Your task to perform on an android device: Add "macbook" to the cart on newegg, then select checkout. Image 0: 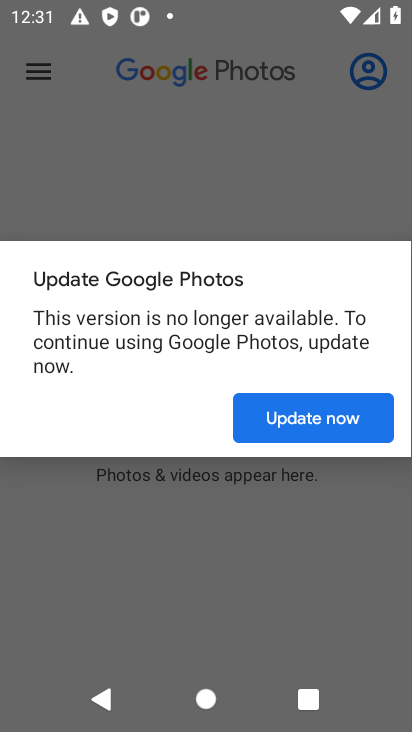
Step 0: press home button
Your task to perform on an android device: Add "macbook" to the cart on newegg, then select checkout. Image 1: 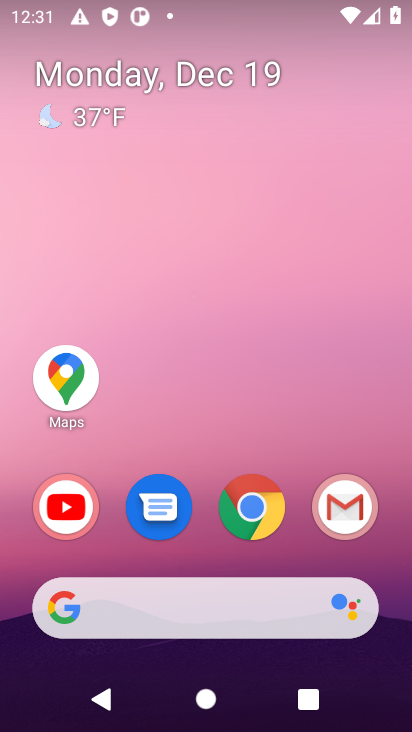
Step 1: click (263, 510)
Your task to perform on an android device: Add "macbook" to the cart on newegg, then select checkout. Image 2: 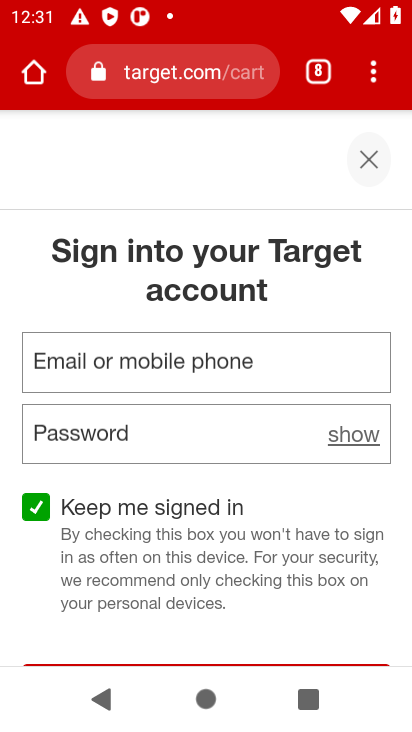
Step 2: click (170, 78)
Your task to perform on an android device: Add "macbook" to the cart on newegg, then select checkout. Image 3: 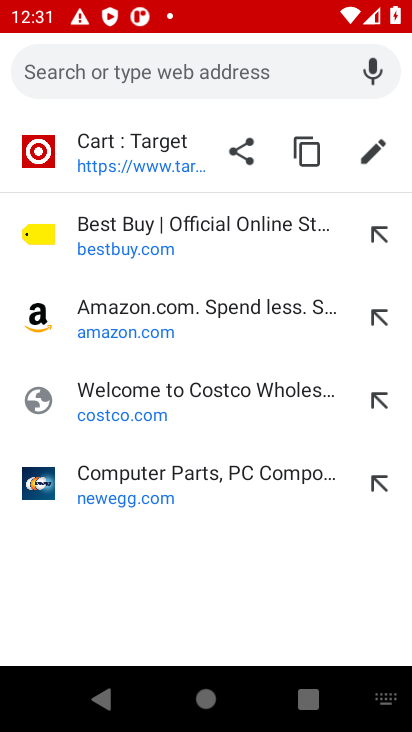
Step 3: click (96, 484)
Your task to perform on an android device: Add "macbook" to the cart on newegg, then select checkout. Image 4: 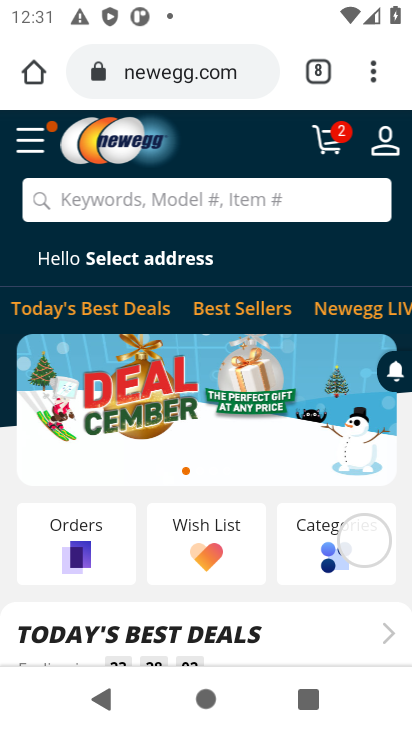
Step 4: click (110, 194)
Your task to perform on an android device: Add "macbook" to the cart on newegg, then select checkout. Image 5: 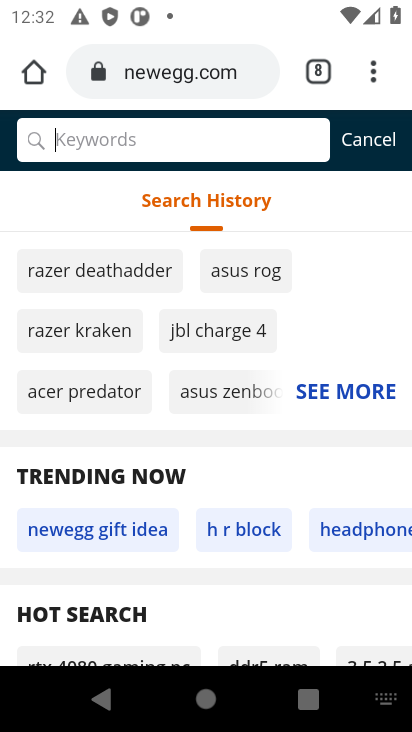
Step 5: type "macbook"
Your task to perform on an android device: Add "macbook" to the cart on newegg, then select checkout. Image 6: 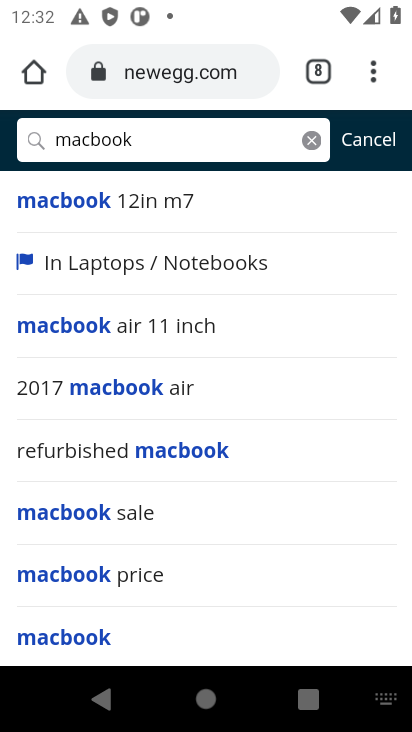
Step 6: click (48, 639)
Your task to perform on an android device: Add "macbook" to the cart on newegg, then select checkout. Image 7: 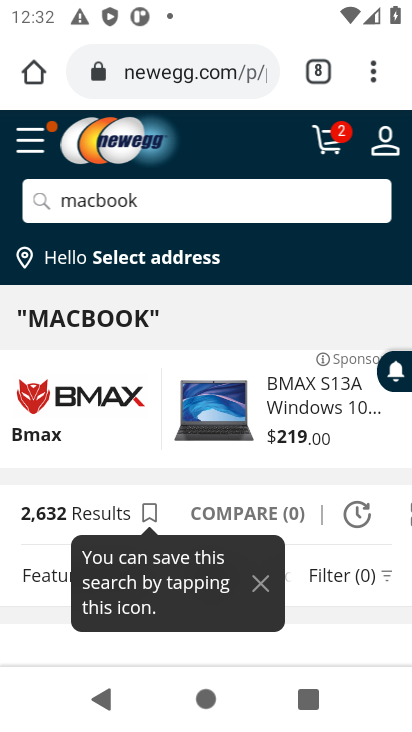
Step 7: drag from (167, 490) to (181, 177)
Your task to perform on an android device: Add "macbook" to the cart on newegg, then select checkout. Image 8: 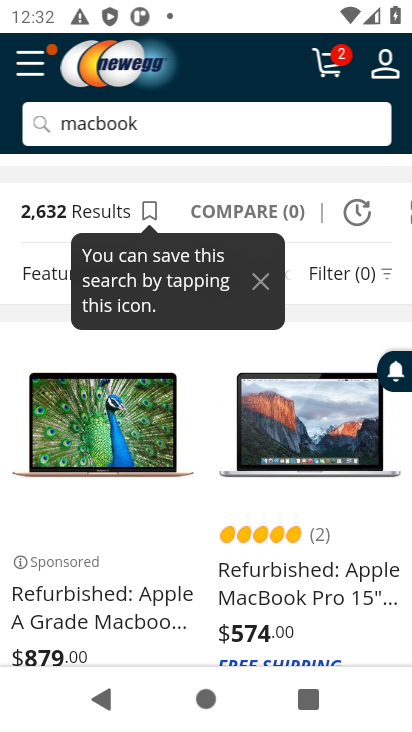
Step 8: drag from (163, 474) to (183, 195)
Your task to perform on an android device: Add "macbook" to the cart on newegg, then select checkout. Image 9: 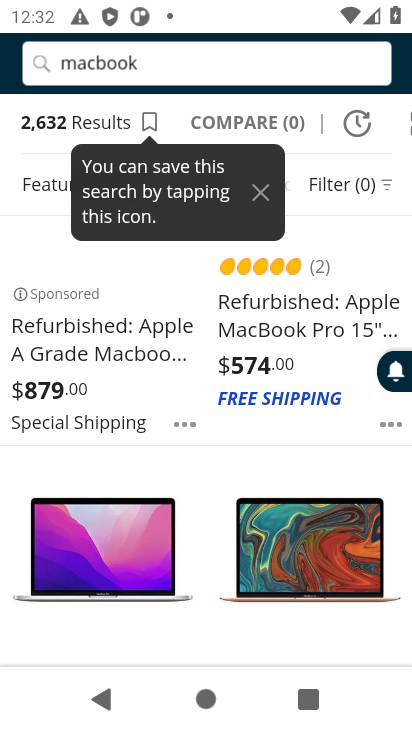
Step 9: click (60, 347)
Your task to perform on an android device: Add "macbook" to the cart on newegg, then select checkout. Image 10: 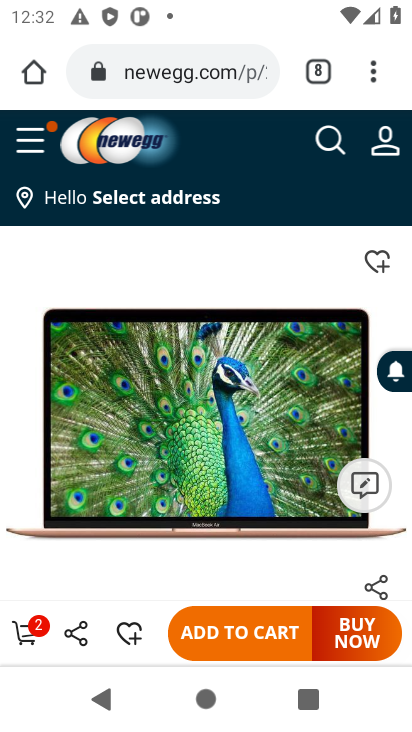
Step 10: drag from (136, 534) to (146, 181)
Your task to perform on an android device: Add "macbook" to the cart on newegg, then select checkout. Image 11: 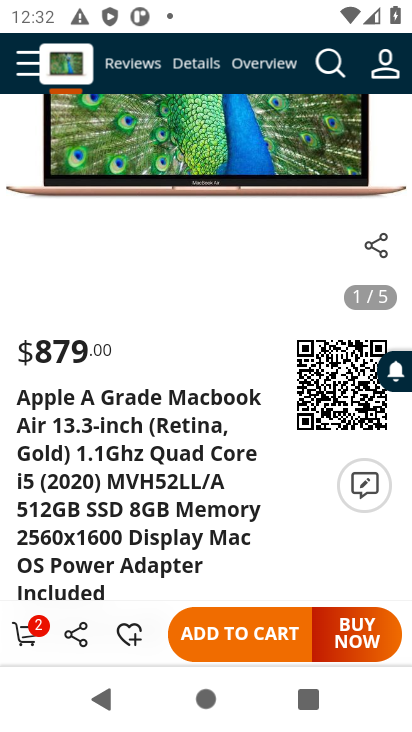
Step 11: click (240, 641)
Your task to perform on an android device: Add "macbook" to the cart on newegg, then select checkout. Image 12: 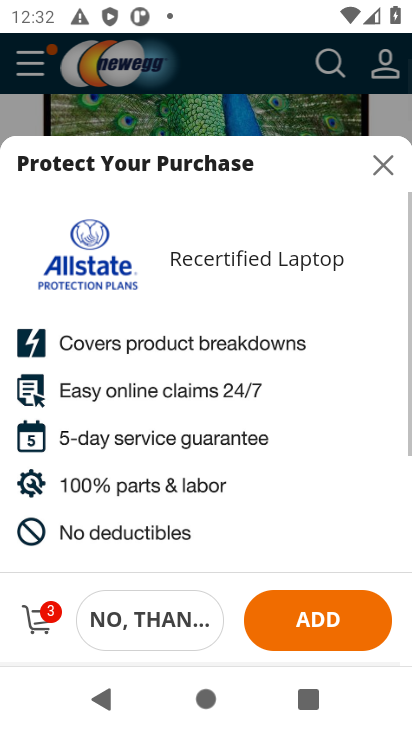
Step 12: click (40, 618)
Your task to perform on an android device: Add "macbook" to the cart on newegg, then select checkout. Image 13: 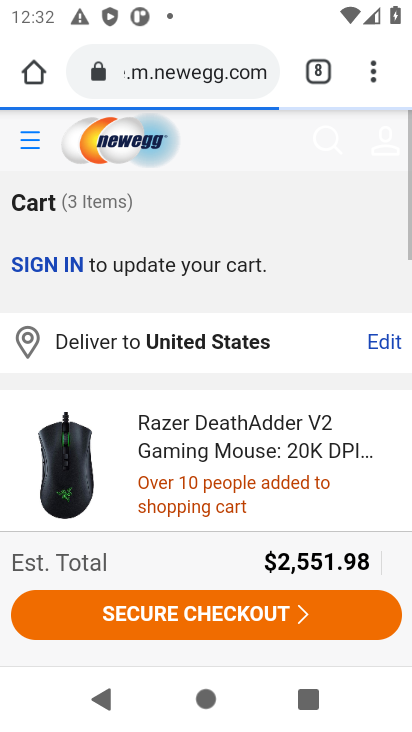
Step 13: click (145, 615)
Your task to perform on an android device: Add "macbook" to the cart on newegg, then select checkout. Image 14: 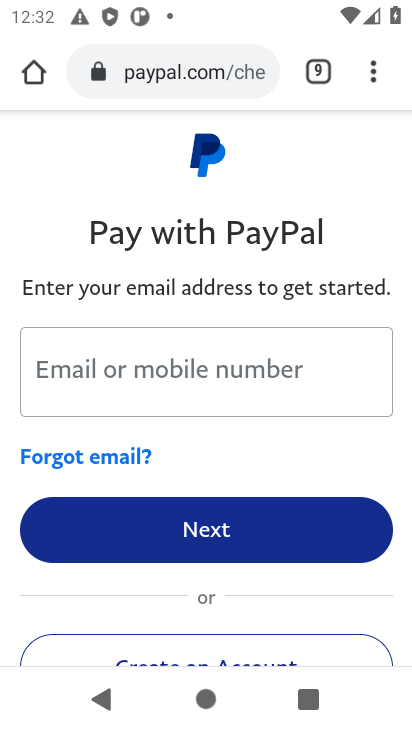
Step 14: task complete